Your task to perform on an android device: Go to wifi settings Image 0: 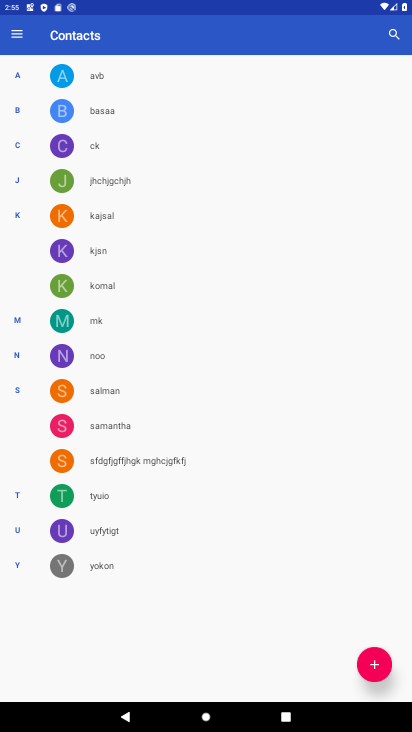
Step 0: press home button
Your task to perform on an android device: Go to wifi settings Image 1: 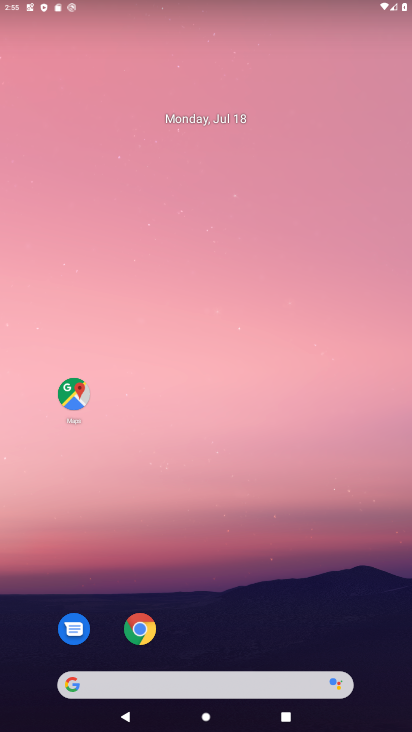
Step 1: drag from (201, 662) to (204, 195)
Your task to perform on an android device: Go to wifi settings Image 2: 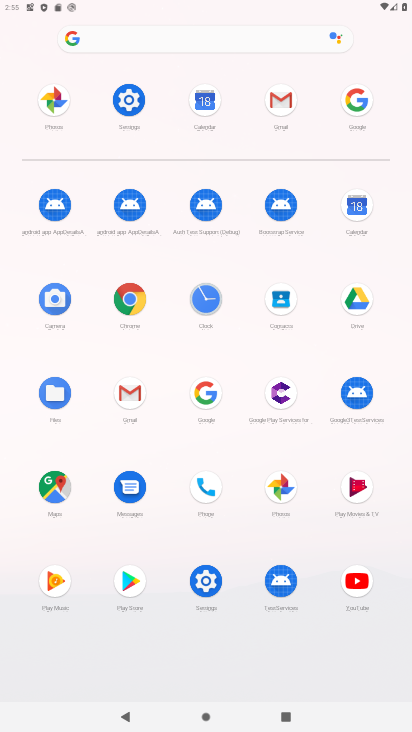
Step 2: click (143, 111)
Your task to perform on an android device: Go to wifi settings Image 3: 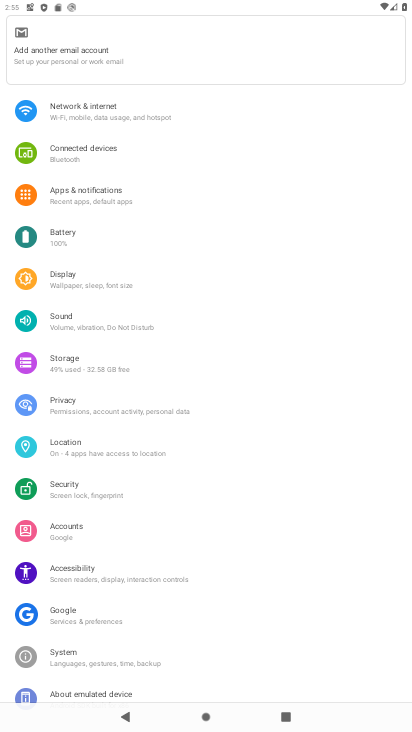
Step 3: click (143, 111)
Your task to perform on an android device: Go to wifi settings Image 4: 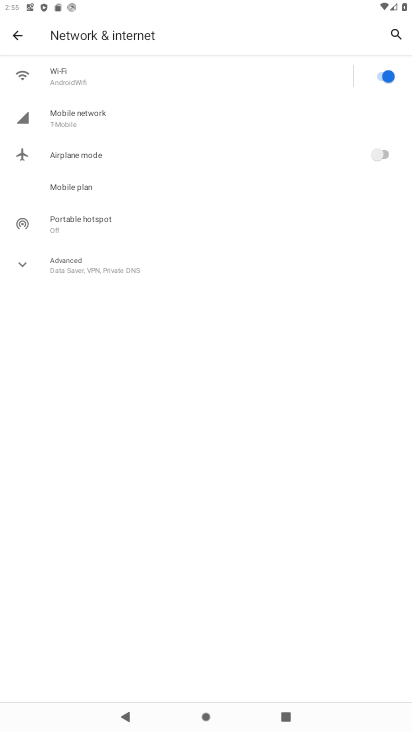
Step 4: click (72, 74)
Your task to perform on an android device: Go to wifi settings Image 5: 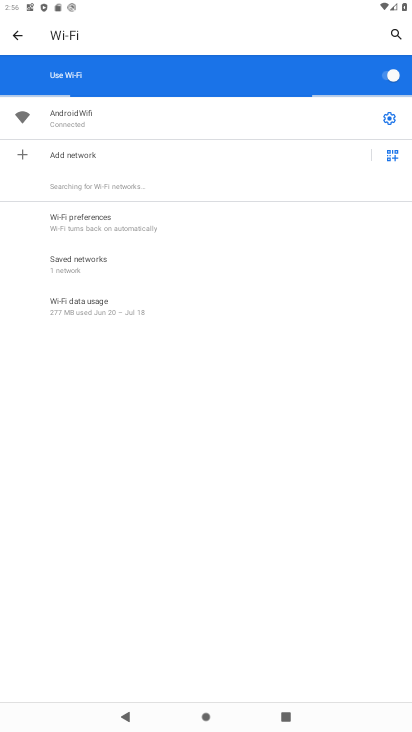
Step 5: task complete